Your task to perform on an android device: Set the phone to "Do not disturb". Image 0: 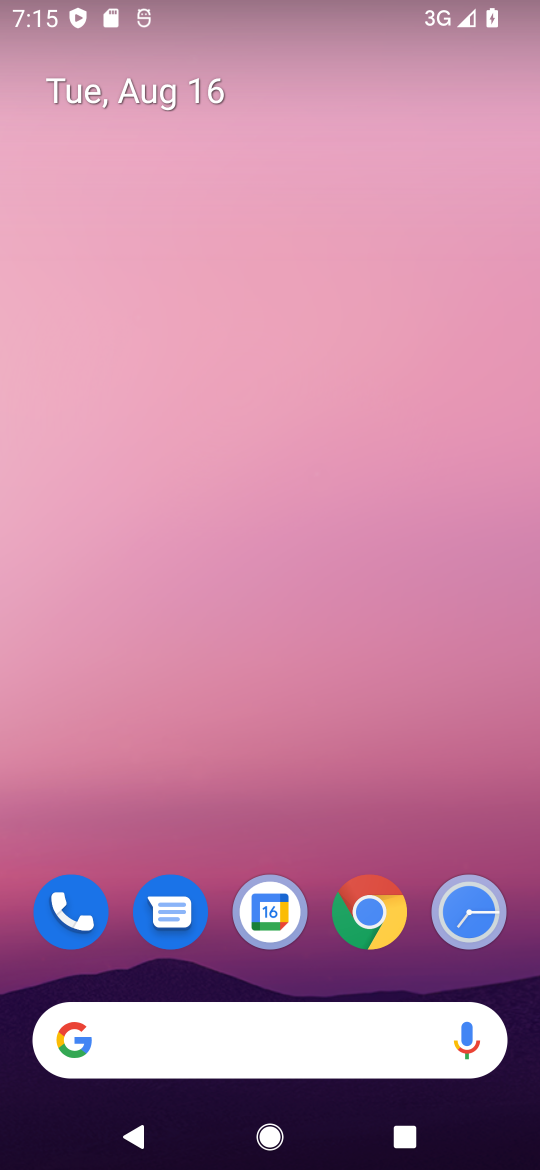
Step 0: drag from (431, 977) to (420, 274)
Your task to perform on an android device: Set the phone to "Do not disturb". Image 1: 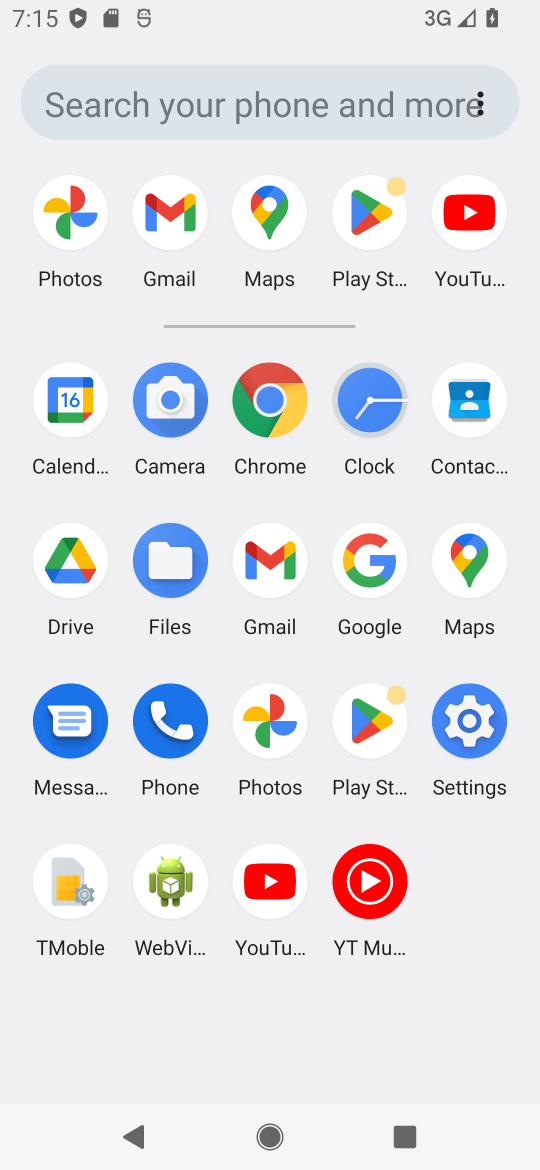
Step 1: click (473, 722)
Your task to perform on an android device: Set the phone to "Do not disturb". Image 2: 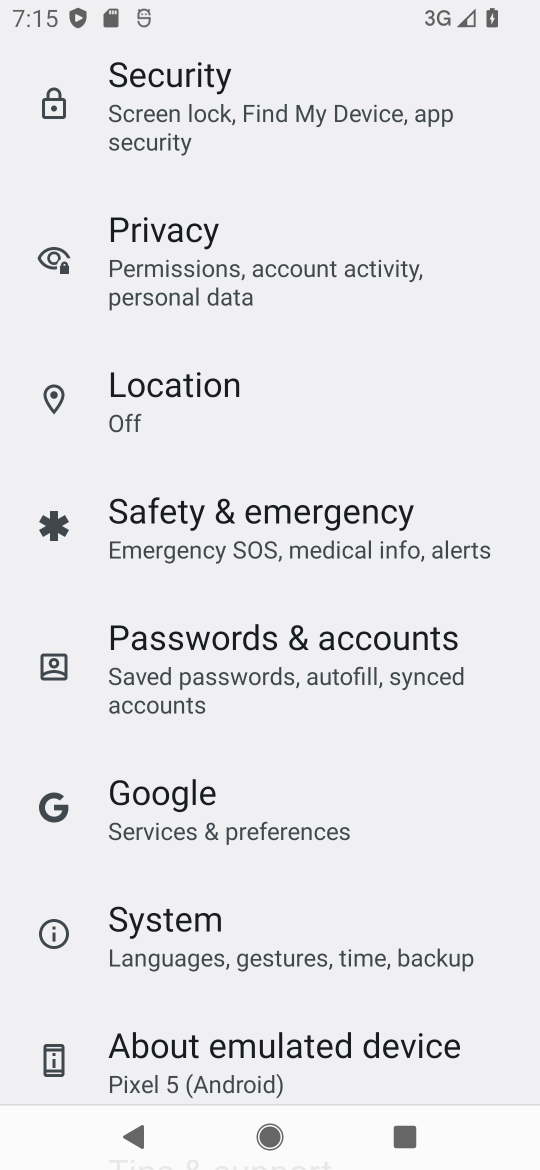
Step 2: drag from (406, 337) to (365, 948)
Your task to perform on an android device: Set the phone to "Do not disturb". Image 3: 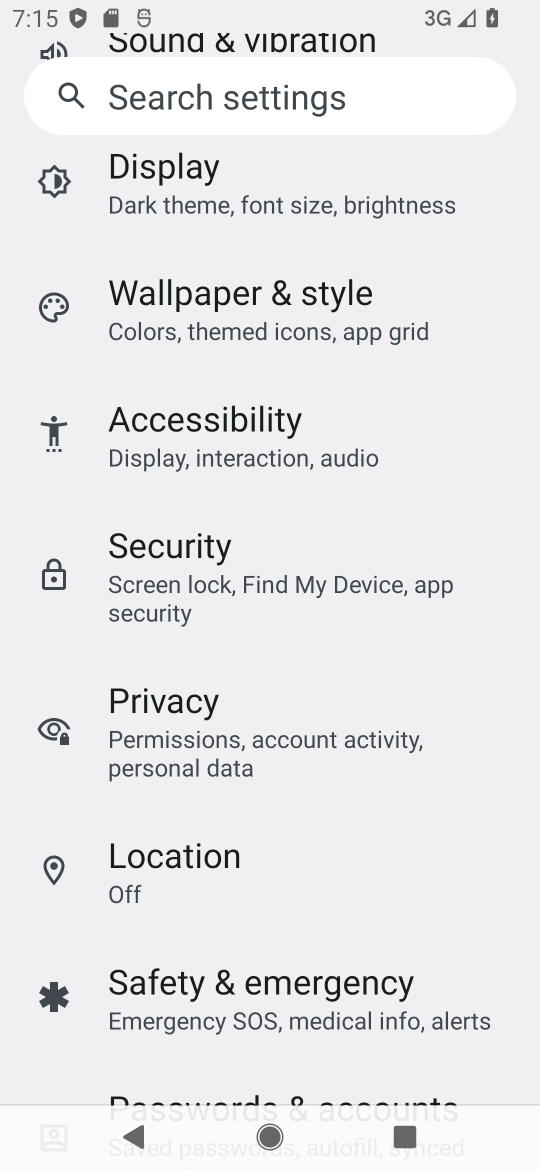
Step 3: drag from (445, 379) to (459, 876)
Your task to perform on an android device: Set the phone to "Do not disturb". Image 4: 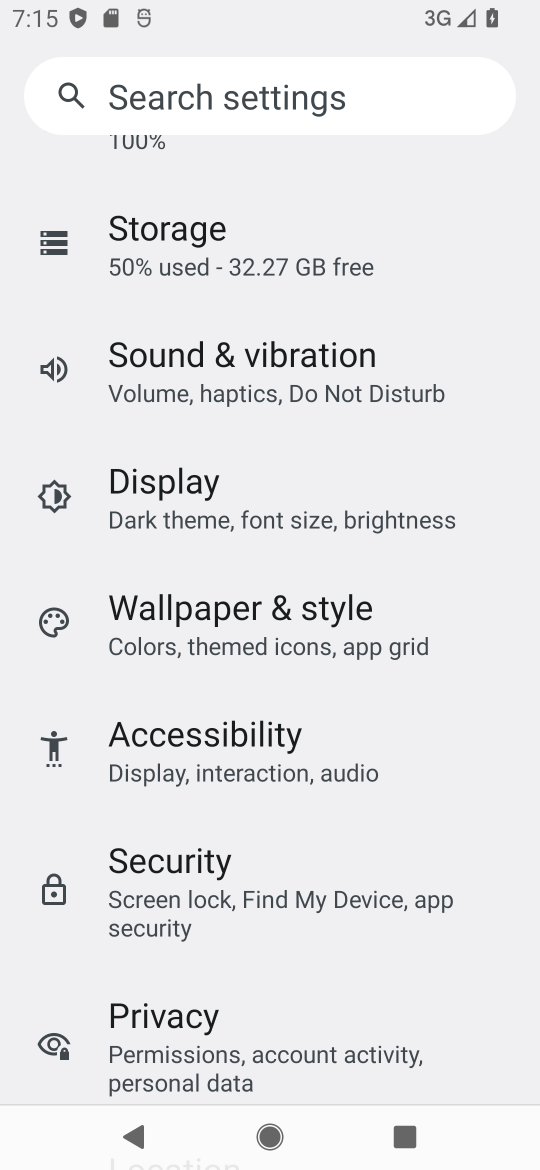
Step 4: drag from (340, 237) to (353, 694)
Your task to perform on an android device: Set the phone to "Do not disturb". Image 5: 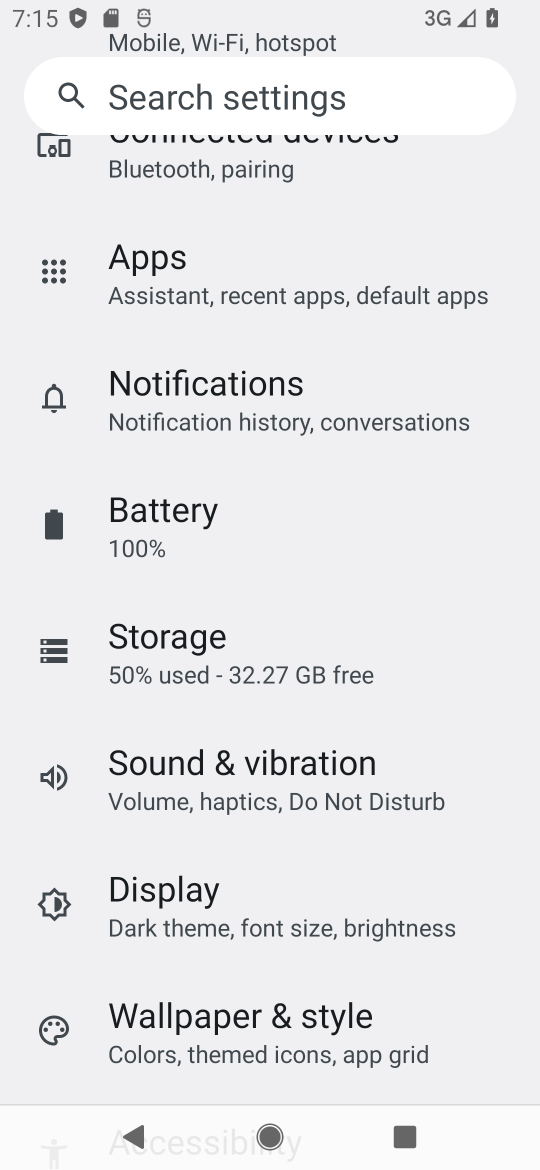
Step 5: click (164, 763)
Your task to perform on an android device: Set the phone to "Do not disturb". Image 6: 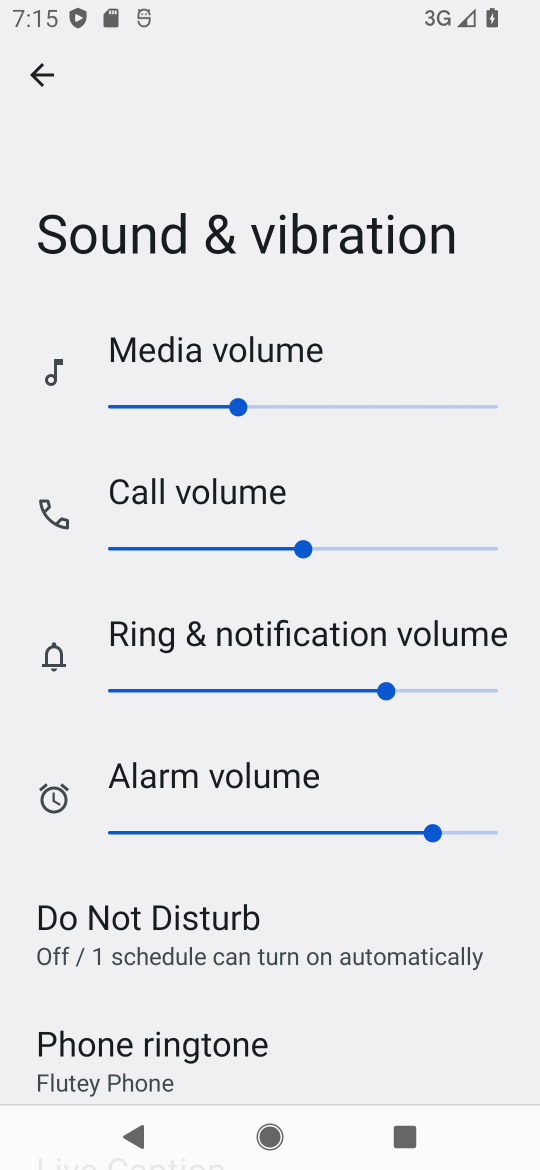
Step 6: drag from (338, 946) to (320, 514)
Your task to perform on an android device: Set the phone to "Do not disturb". Image 7: 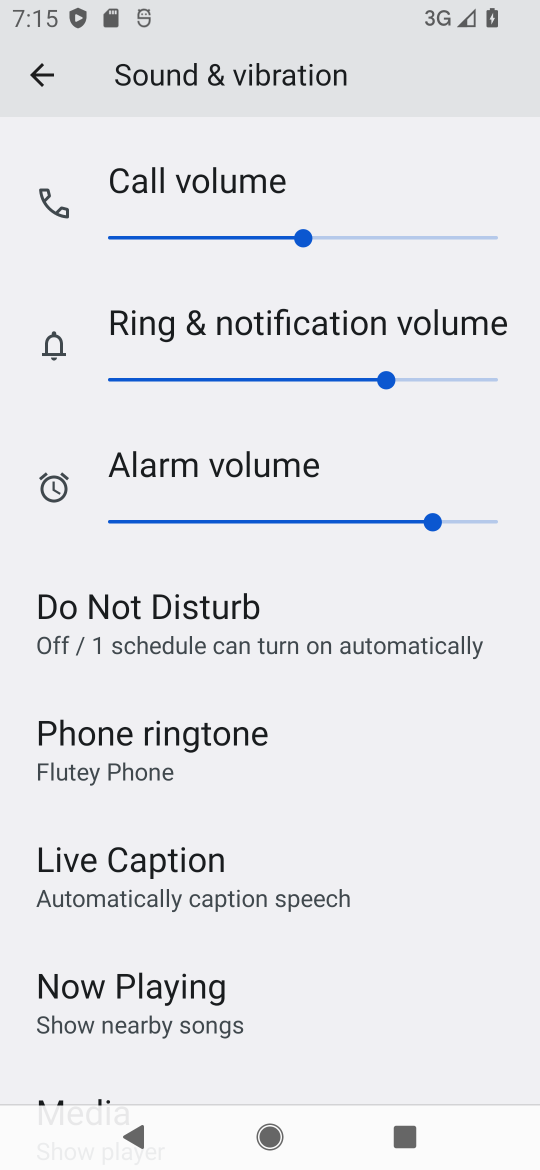
Step 7: click (183, 600)
Your task to perform on an android device: Set the phone to "Do not disturb". Image 8: 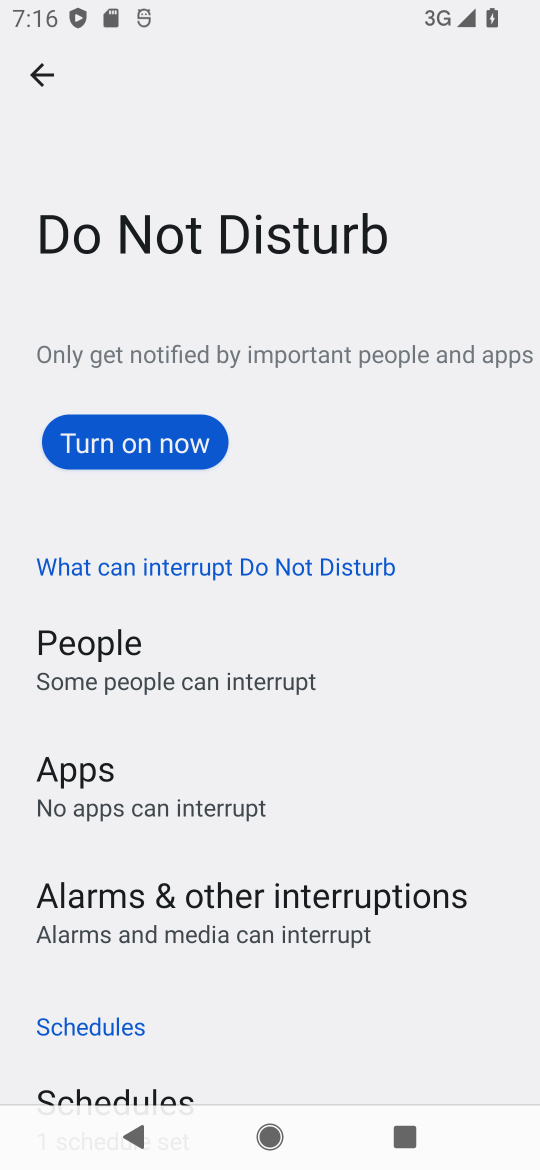
Step 8: click (116, 455)
Your task to perform on an android device: Set the phone to "Do not disturb". Image 9: 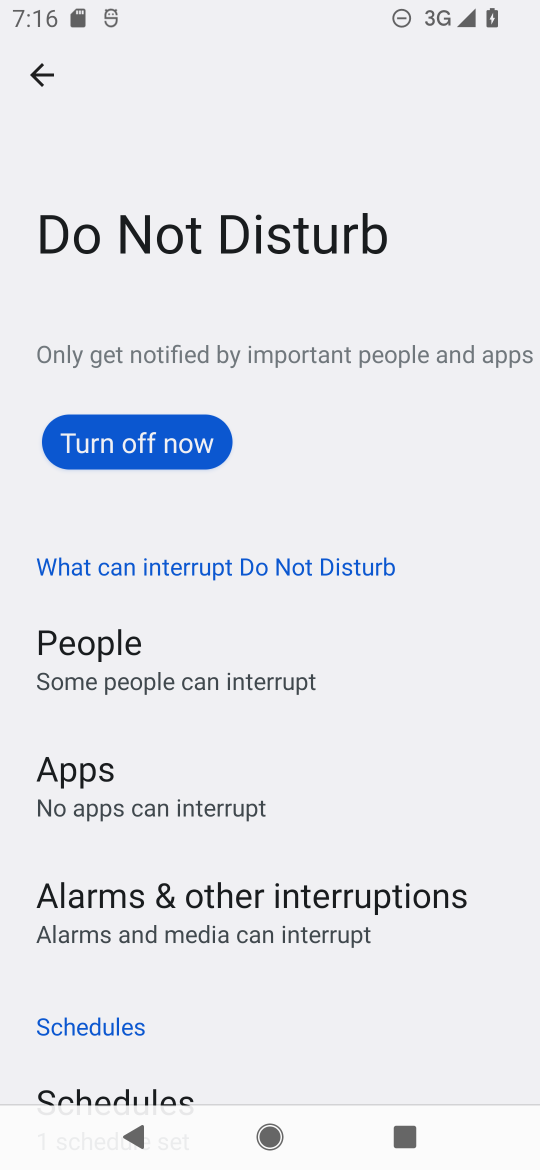
Step 9: task complete